Your task to perform on an android device: What is the news today? Image 0: 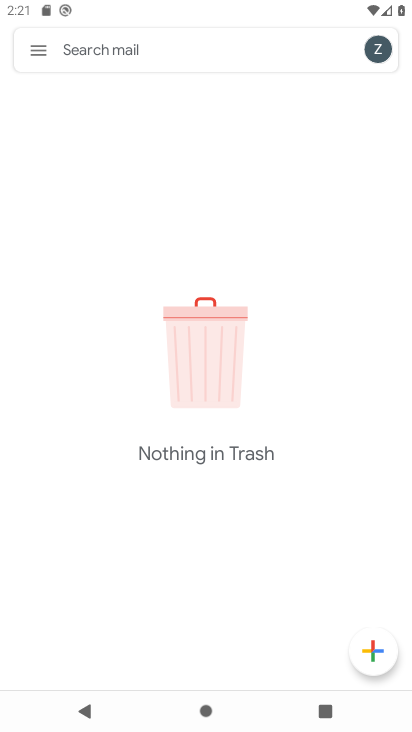
Step 0: press back button
Your task to perform on an android device: What is the news today? Image 1: 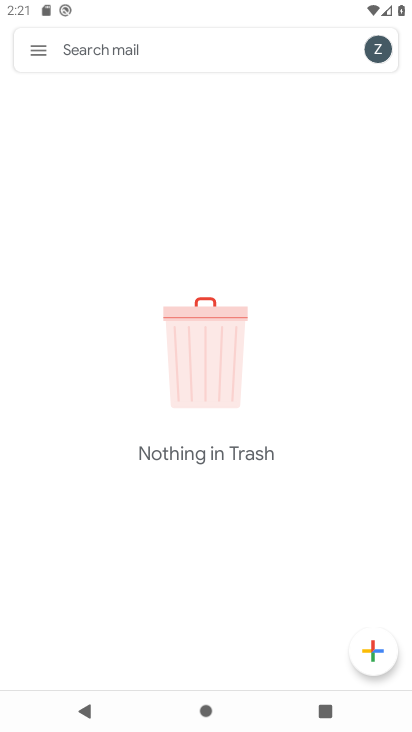
Step 1: press back button
Your task to perform on an android device: What is the news today? Image 2: 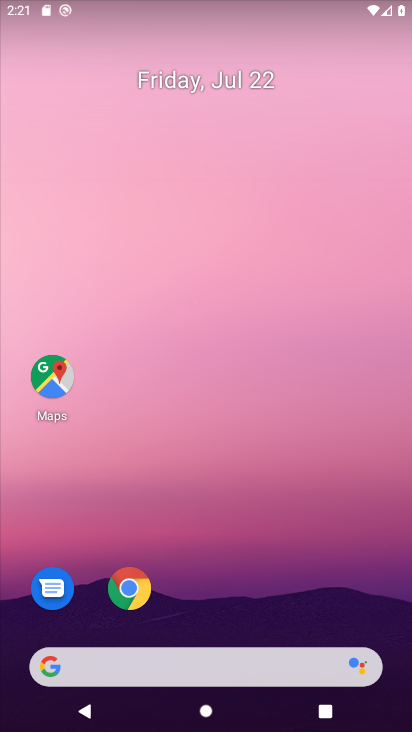
Step 2: drag from (247, 646) to (220, 277)
Your task to perform on an android device: What is the news today? Image 3: 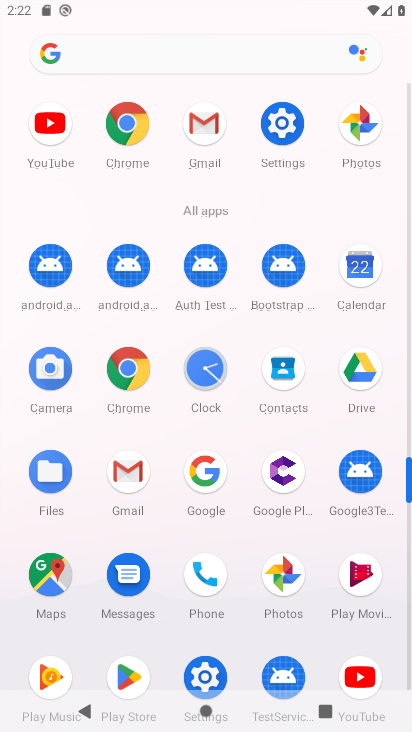
Step 3: press back button
Your task to perform on an android device: What is the news today? Image 4: 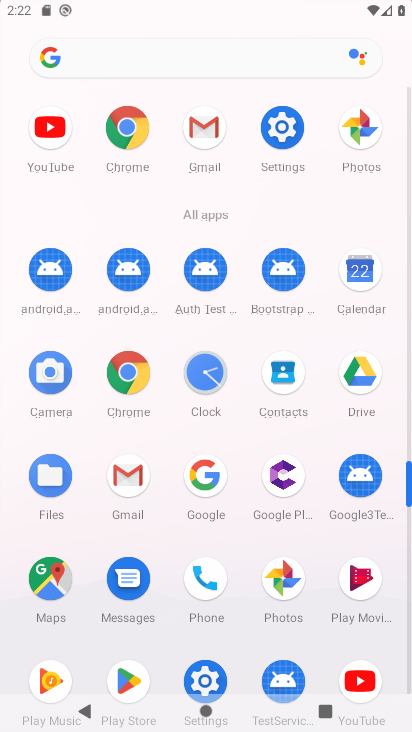
Step 4: press back button
Your task to perform on an android device: What is the news today? Image 5: 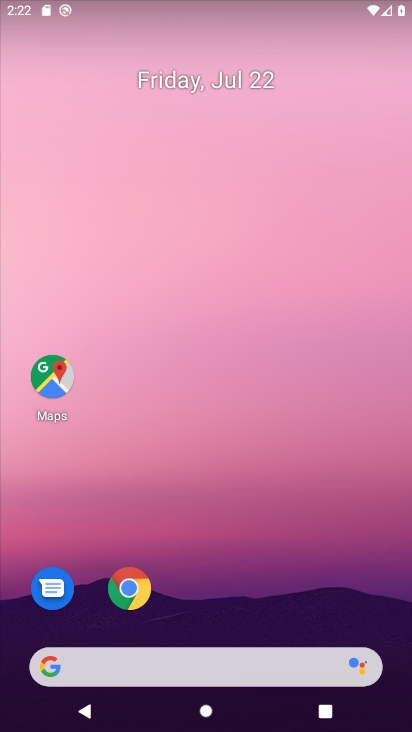
Step 5: press back button
Your task to perform on an android device: What is the news today? Image 6: 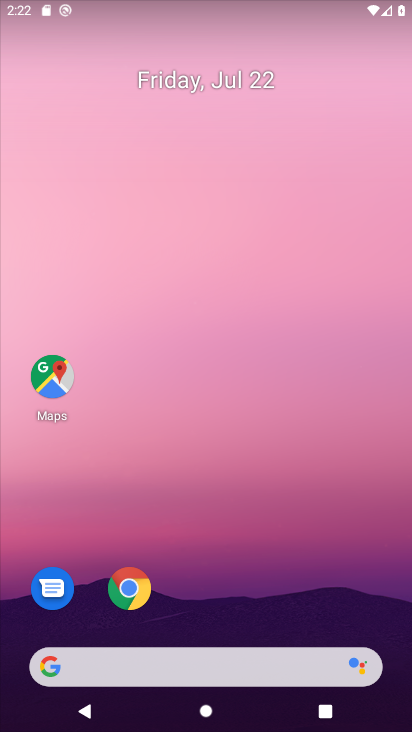
Step 6: press back button
Your task to perform on an android device: What is the news today? Image 7: 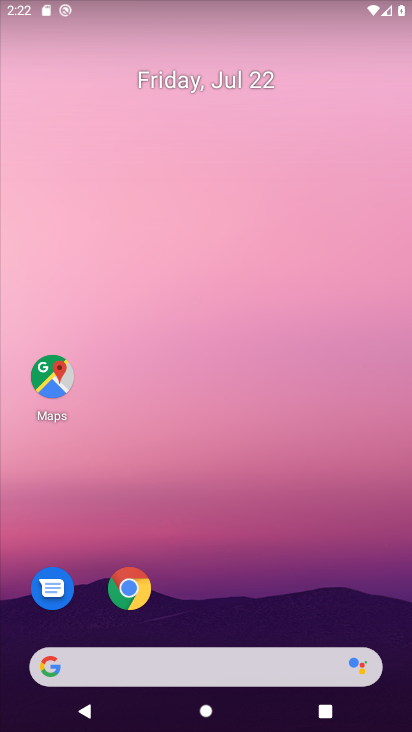
Step 7: drag from (397, 443) to (401, 226)
Your task to perform on an android device: What is the news today? Image 8: 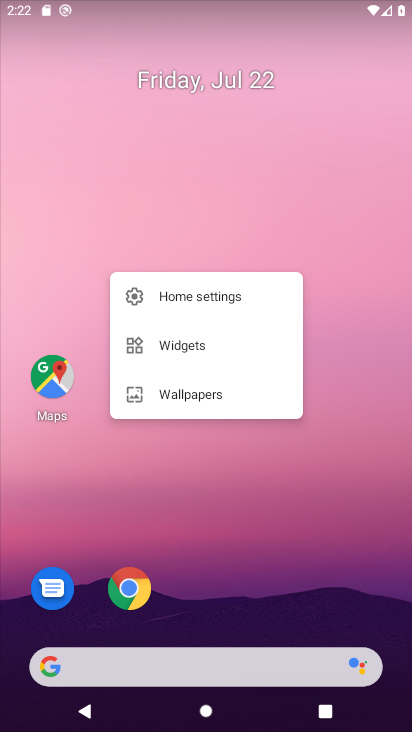
Step 8: drag from (24, 122) to (375, 252)
Your task to perform on an android device: What is the news today? Image 9: 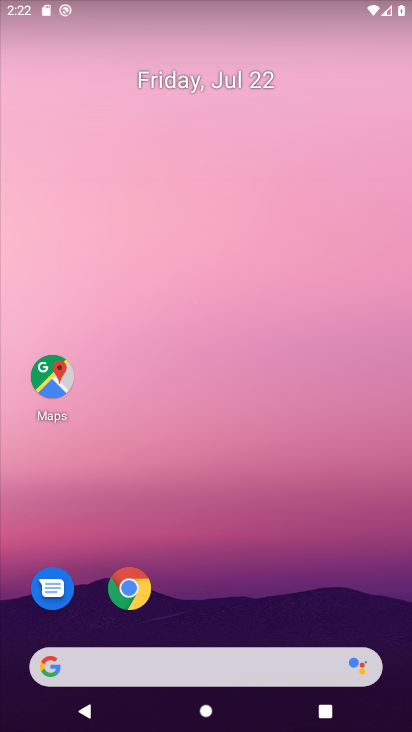
Step 9: drag from (26, 188) to (395, 409)
Your task to perform on an android device: What is the news today? Image 10: 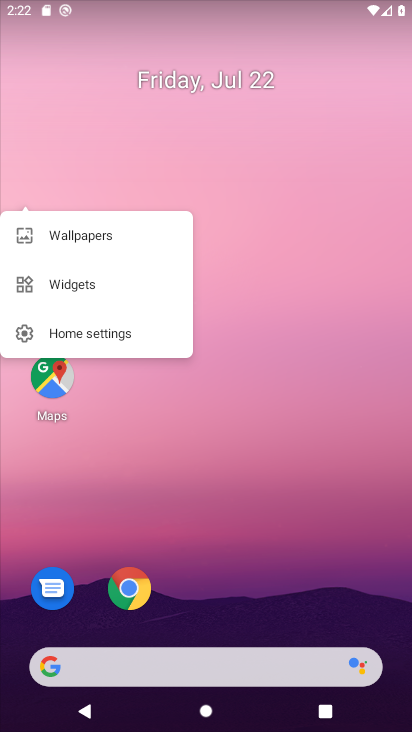
Step 10: drag from (25, 106) to (392, 398)
Your task to perform on an android device: What is the news today? Image 11: 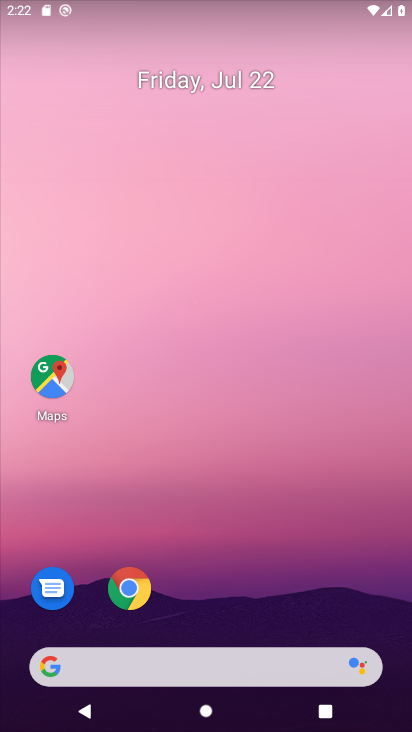
Step 11: drag from (379, 409) to (403, 434)
Your task to perform on an android device: What is the news today? Image 12: 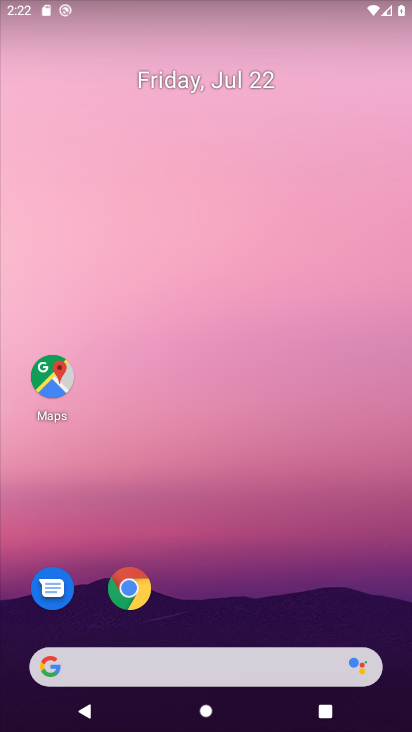
Step 12: drag from (9, 308) to (375, 386)
Your task to perform on an android device: What is the news today? Image 13: 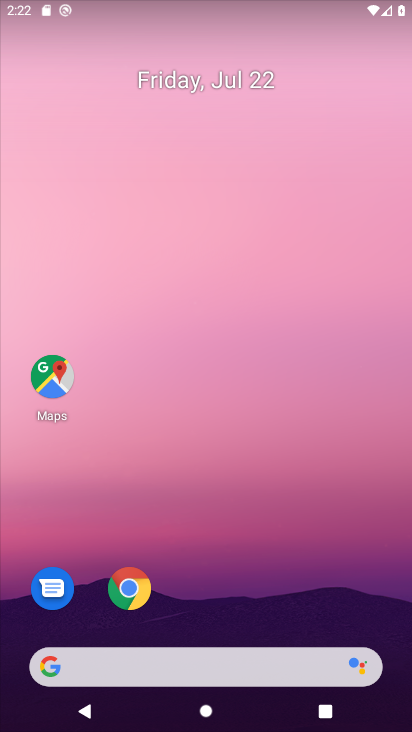
Step 13: click (326, 466)
Your task to perform on an android device: What is the news today? Image 14: 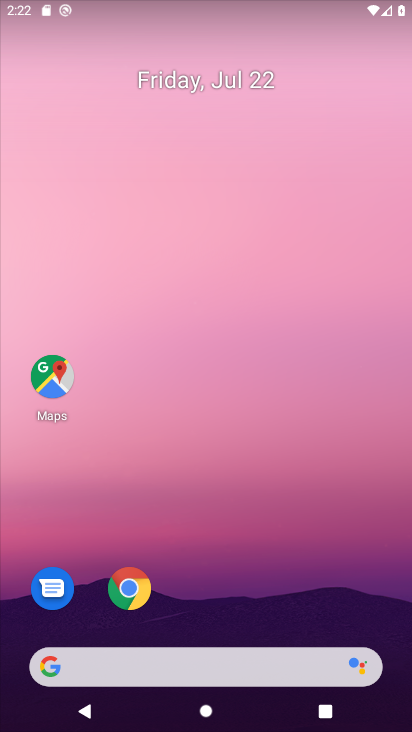
Step 14: task complete